Your task to perform on an android device: read, delete, or share a saved page in the chrome app Image 0: 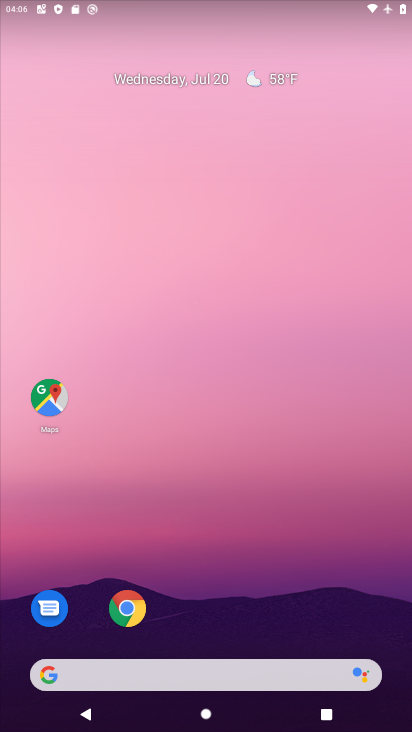
Step 0: drag from (264, 643) to (250, 230)
Your task to perform on an android device: read, delete, or share a saved page in the chrome app Image 1: 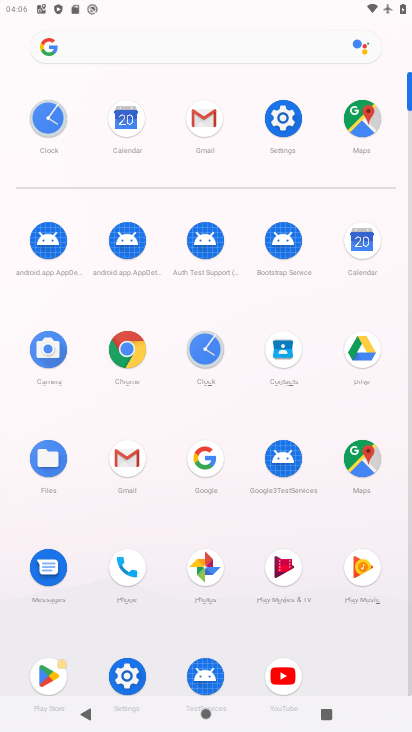
Step 1: click (122, 374)
Your task to perform on an android device: read, delete, or share a saved page in the chrome app Image 2: 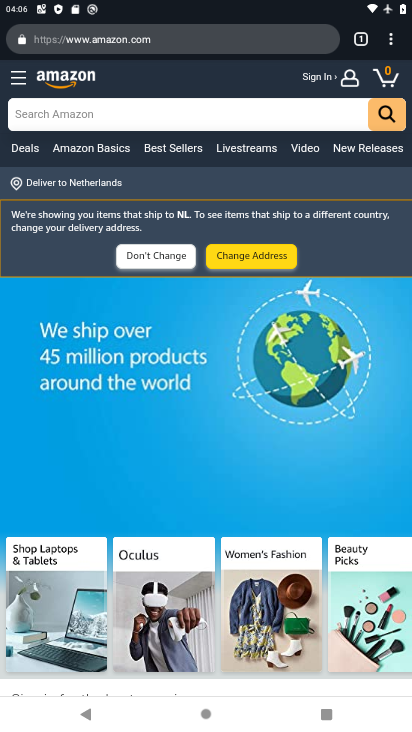
Step 2: click (397, 38)
Your task to perform on an android device: read, delete, or share a saved page in the chrome app Image 3: 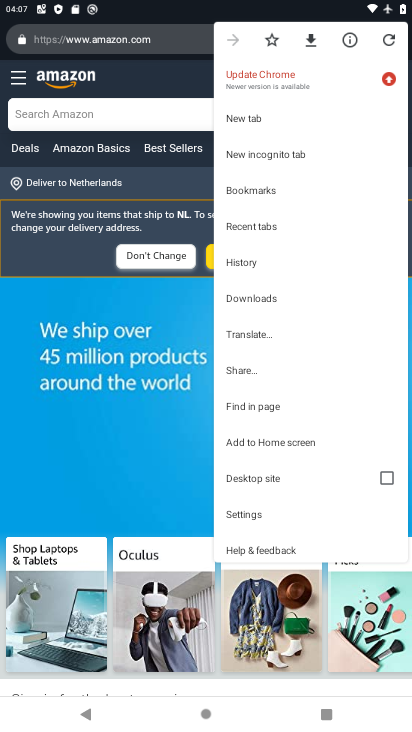
Step 3: click (239, 506)
Your task to perform on an android device: read, delete, or share a saved page in the chrome app Image 4: 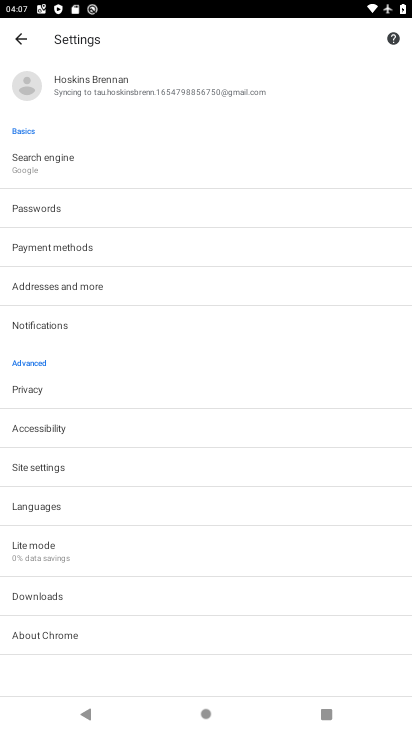
Step 4: task complete